Your task to perform on an android device: turn on data saver in the chrome app Image 0: 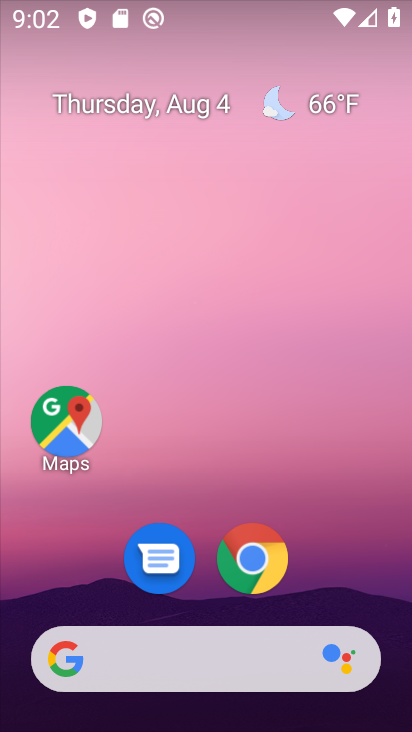
Step 0: drag from (364, 570) to (285, 0)
Your task to perform on an android device: turn on data saver in the chrome app Image 1: 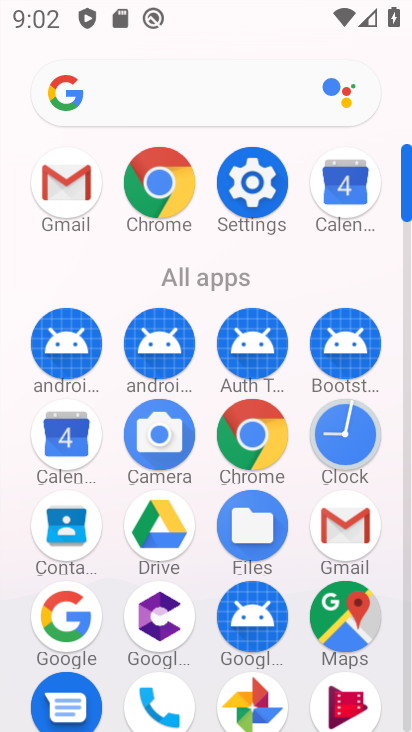
Step 1: click (256, 426)
Your task to perform on an android device: turn on data saver in the chrome app Image 2: 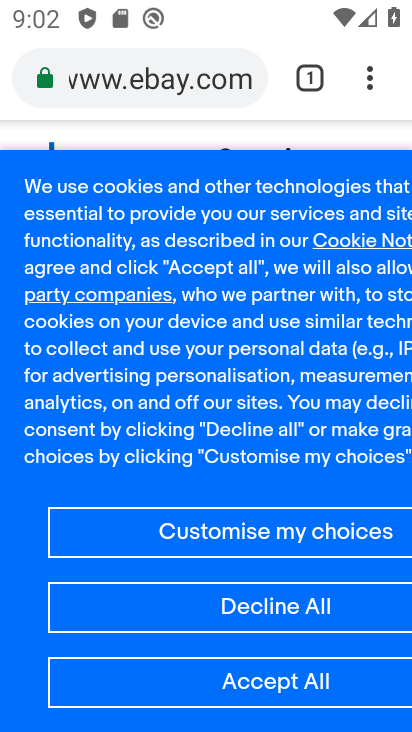
Step 2: drag from (380, 66) to (156, 604)
Your task to perform on an android device: turn on data saver in the chrome app Image 3: 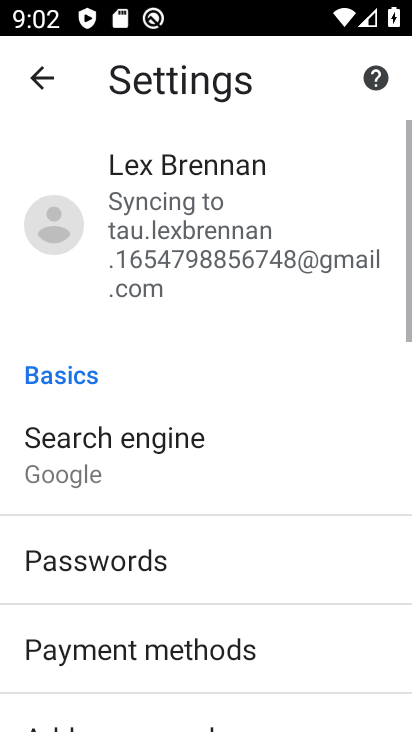
Step 3: drag from (327, 473) to (380, 154)
Your task to perform on an android device: turn on data saver in the chrome app Image 4: 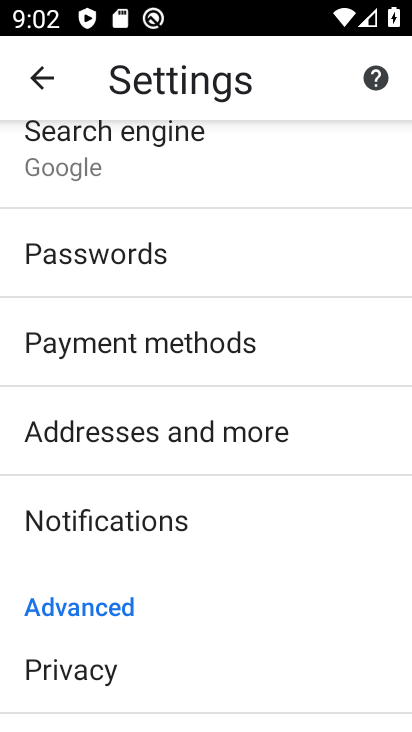
Step 4: drag from (260, 611) to (304, 133)
Your task to perform on an android device: turn on data saver in the chrome app Image 5: 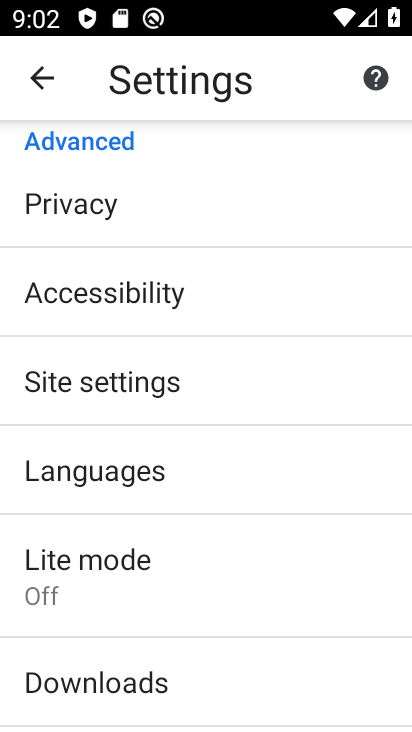
Step 5: click (86, 597)
Your task to perform on an android device: turn on data saver in the chrome app Image 6: 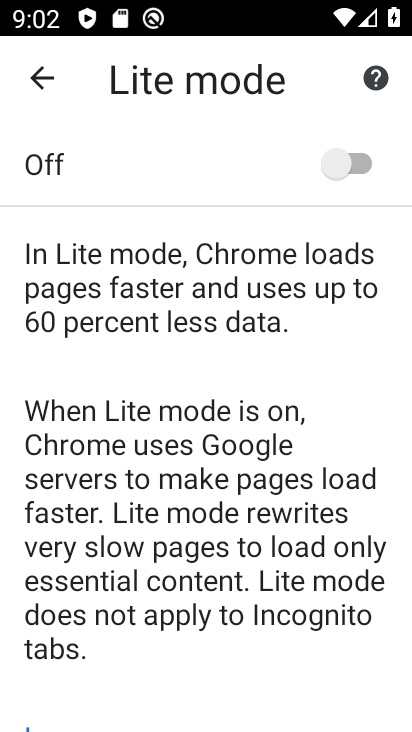
Step 6: click (354, 155)
Your task to perform on an android device: turn on data saver in the chrome app Image 7: 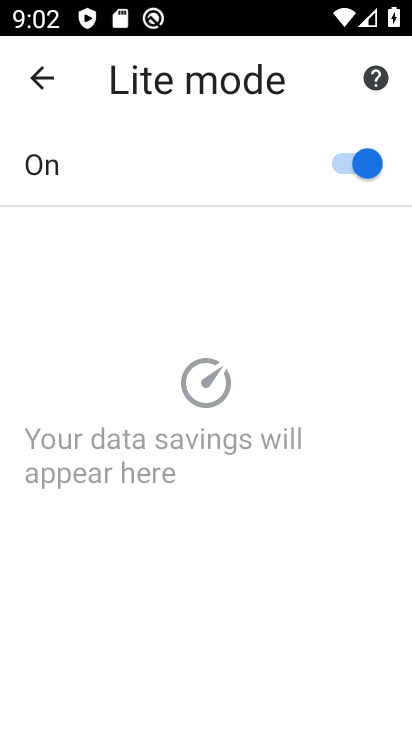
Step 7: task complete